Your task to perform on an android device: Open settings Image 0: 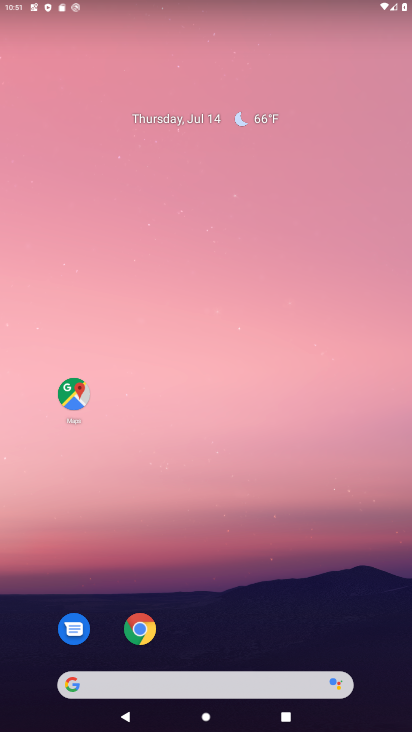
Step 0: press home button
Your task to perform on an android device: Open settings Image 1: 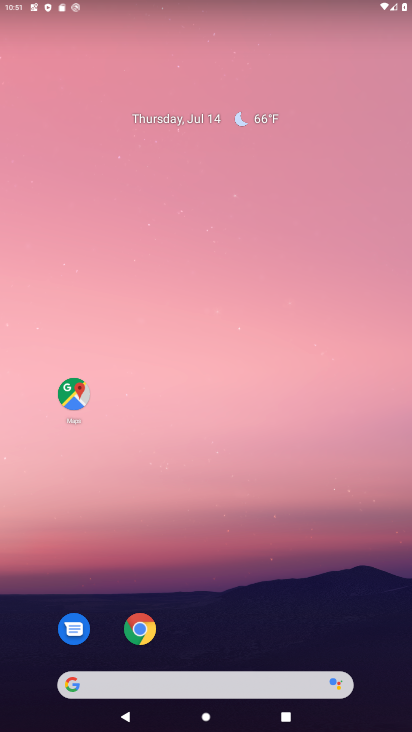
Step 1: drag from (212, 612) to (282, 0)
Your task to perform on an android device: Open settings Image 2: 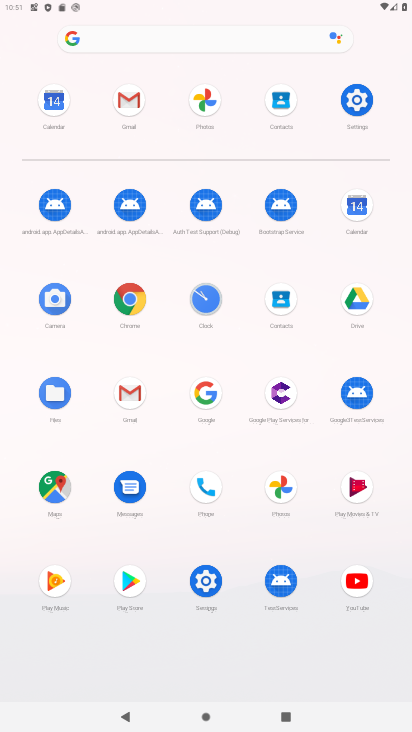
Step 2: click (356, 162)
Your task to perform on an android device: Open settings Image 3: 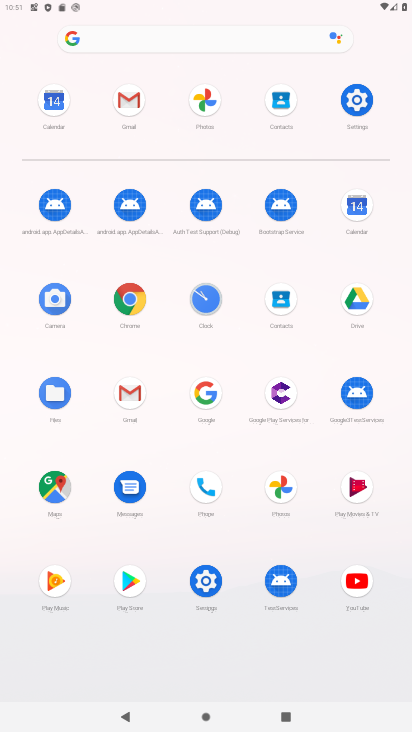
Step 3: click (347, 115)
Your task to perform on an android device: Open settings Image 4: 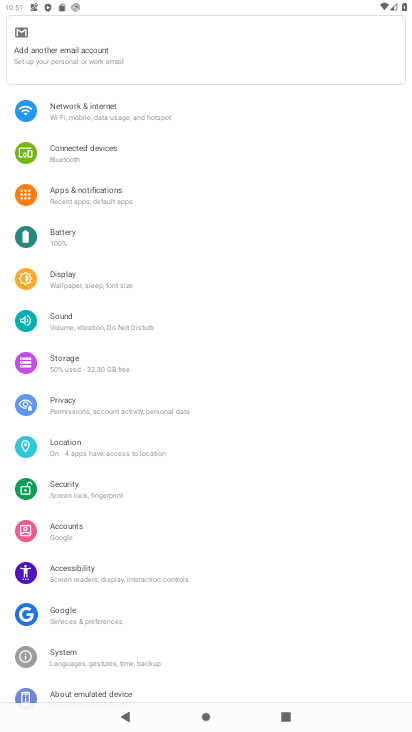
Step 4: task complete